Your task to perform on an android device: Open Yahoo.com Image 0: 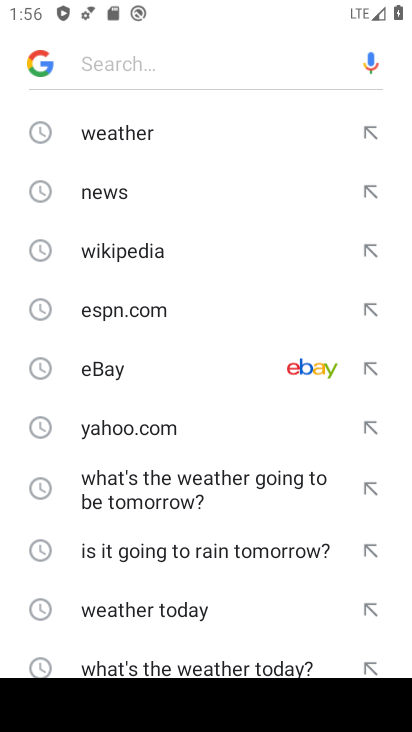
Step 0: press home button
Your task to perform on an android device: Open Yahoo.com Image 1: 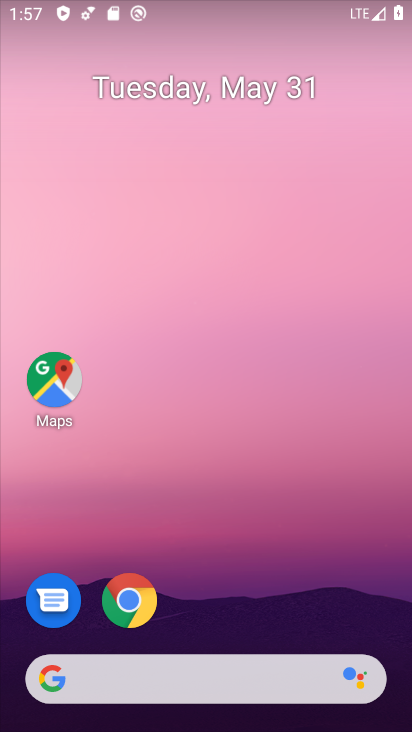
Step 1: click (125, 593)
Your task to perform on an android device: Open Yahoo.com Image 2: 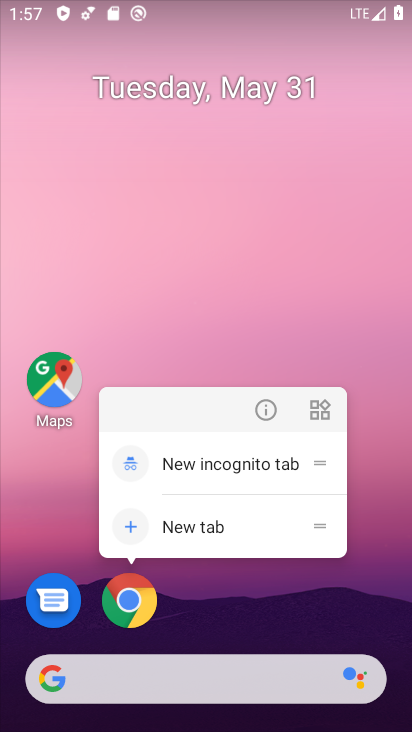
Step 2: click (268, 634)
Your task to perform on an android device: Open Yahoo.com Image 3: 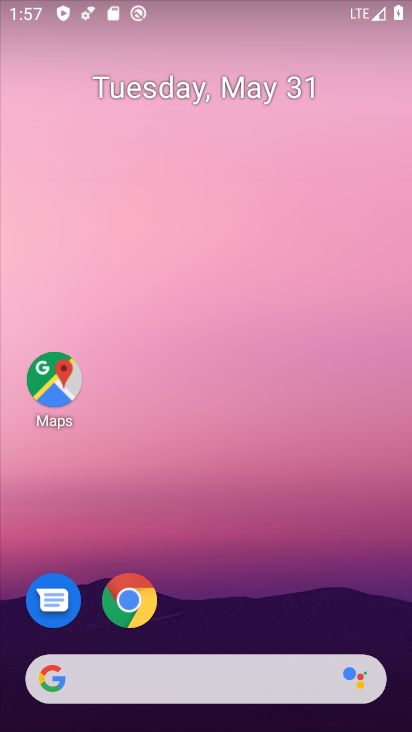
Step 3: drag from (251, 629) to (329, 3)
Your task to perform on an android device: Open Yahoo.com Image 4: 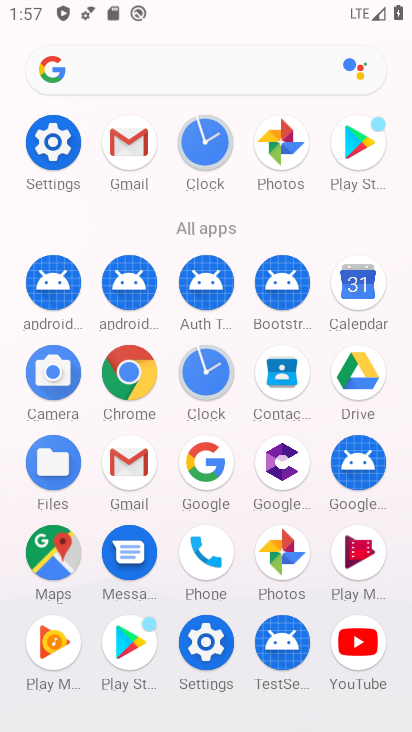
Step 4: click (123, 369)
Your task to perform on an android device: Open Yahoo.com Image 5: 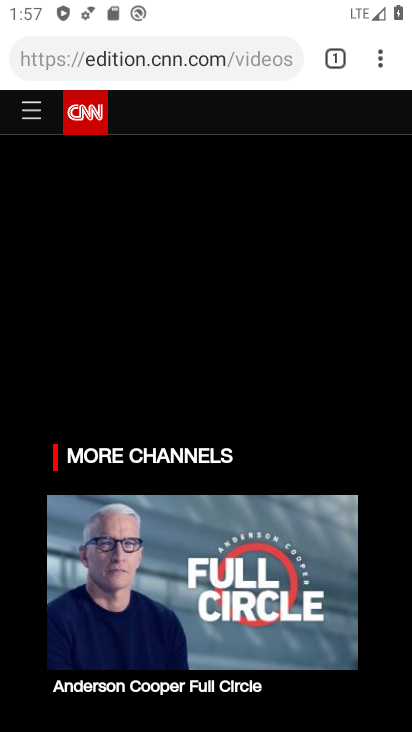
Step 5: click (335, 61)
Your task to perform on an android device: Open Yahoo.com Image 6: 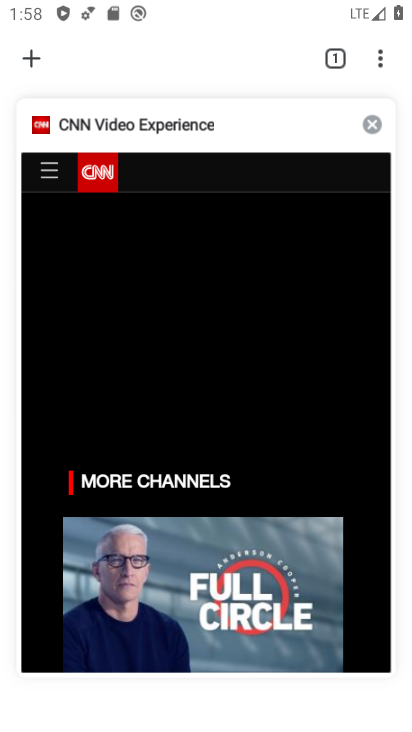
Step 6: click (24, 54)
Your task to perform on an android device: Open Yahoo.com Image 7: 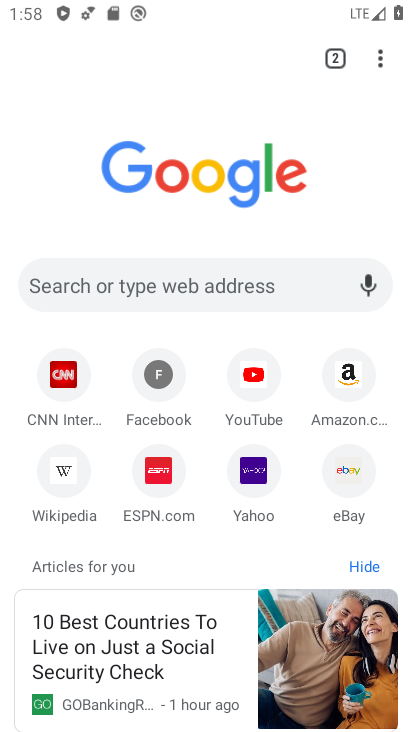
Step 7: click (236, 479)
Your task to perform on an android device: Open Yahoo.com Image 8: 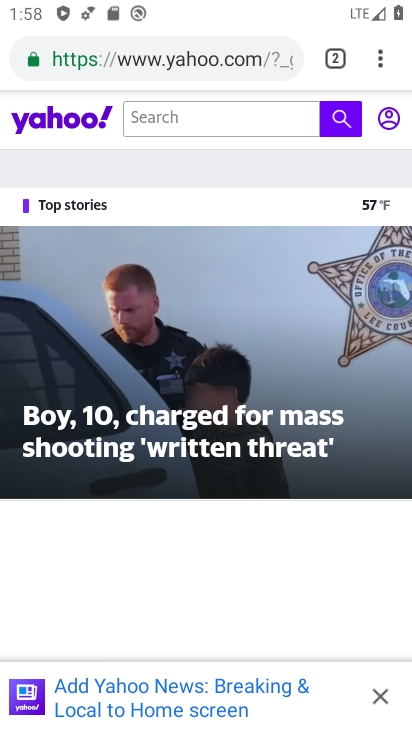
Step 8: task complete